Your task to perform on an android device: snooze an email in the gmail app Image 0: 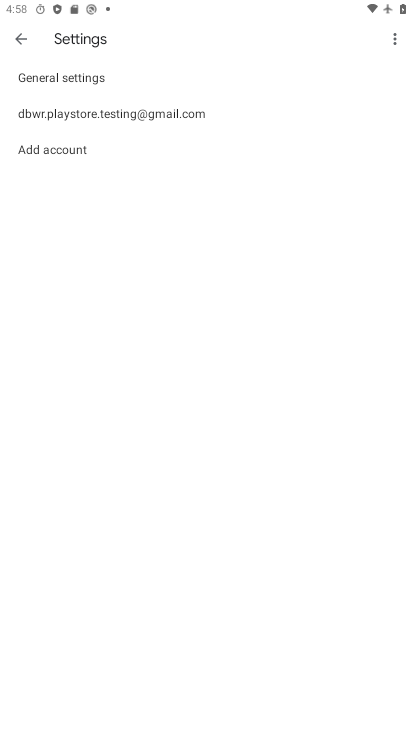
Step 0: click (19, 34)
Your task to perform on an android device: snooze an email in the gmail app Image 1: 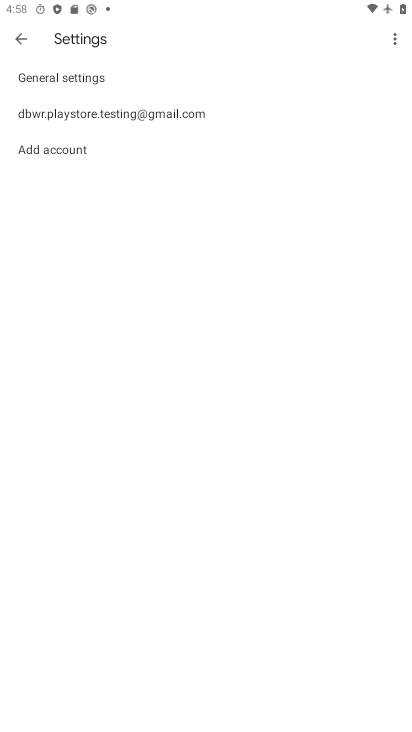
Step 1: click (25, 38)
Your task to perform on an android device: snooze an email in the gmail app Image 2: 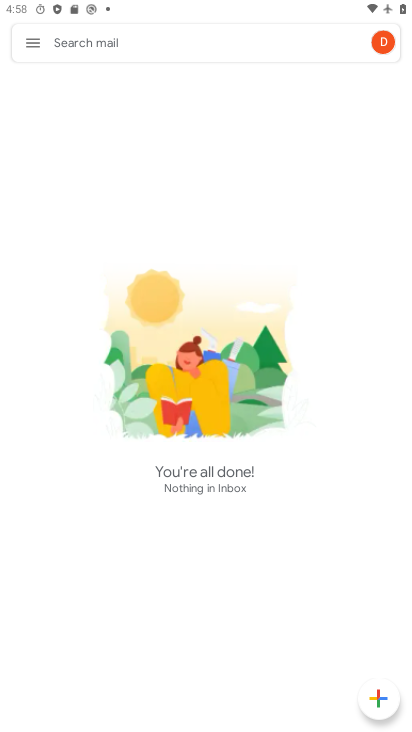
Step 2: click (29, 44)
Your task to perform on an android device: snooze an email in the gmail app Image 3: 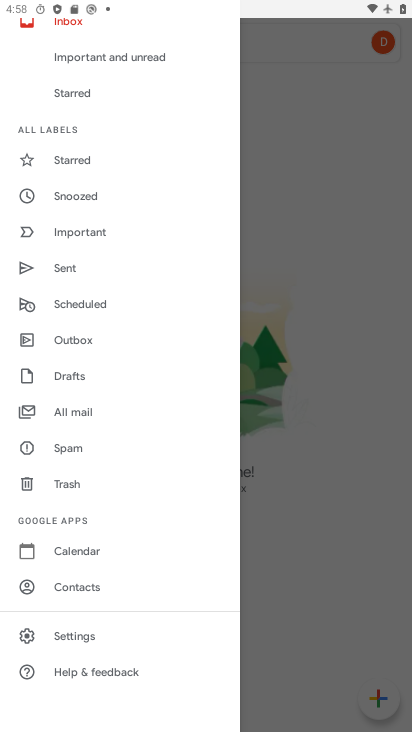
Step 3: click (81, 22)
Your task to perform on an android device: snooze an email in the gmail app Image 4: 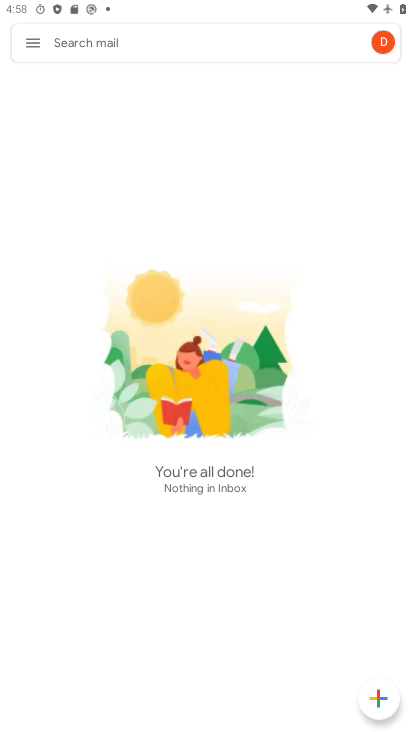
Step 4: task complete